Your task to perform on an android device: Open calendar and show me the second week of next month Image 0: 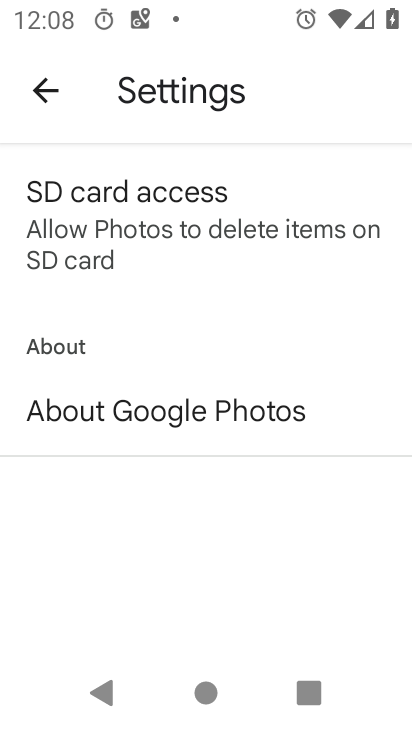
Step 0: press home button
Your task to perform on an android device: Open calendar and show me the second week of next month Image 1: 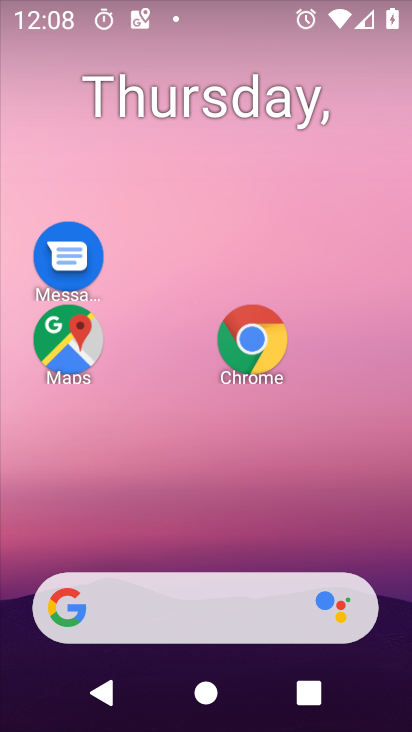
Step 1: drag from (229, 533) to (180, 90)
Your task to perform on an android device: Open calendar and show me the second week of next month Image 2: 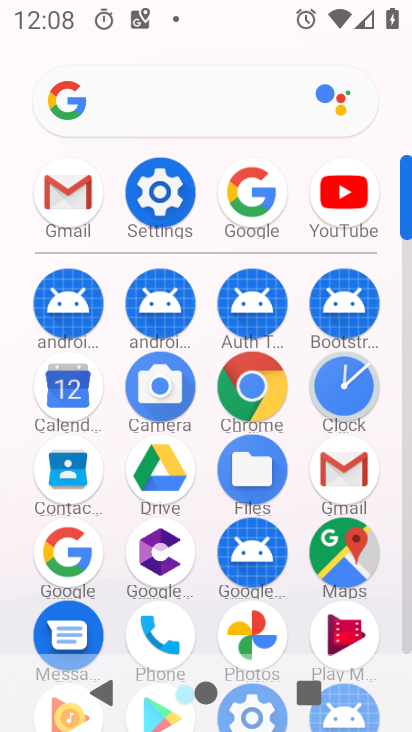
Step 2: click (71, 394)
Your task to perform on an android device: Open calendar and show me the second week of next month Image 3: 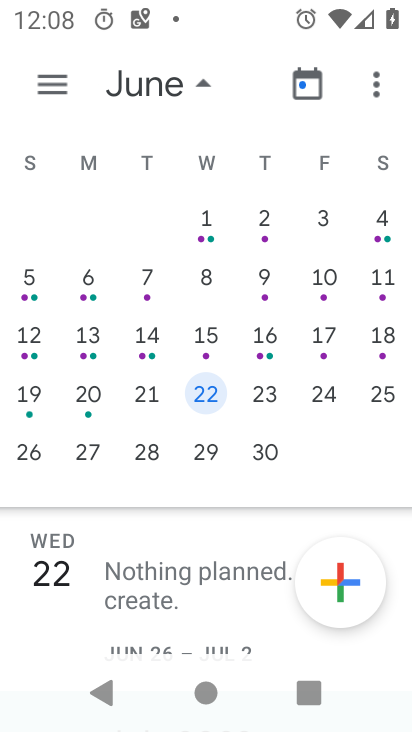
Step 3: click (335, 466)
Your task to perform on an android device: Open calendar and show me the second week of next month Image 4: 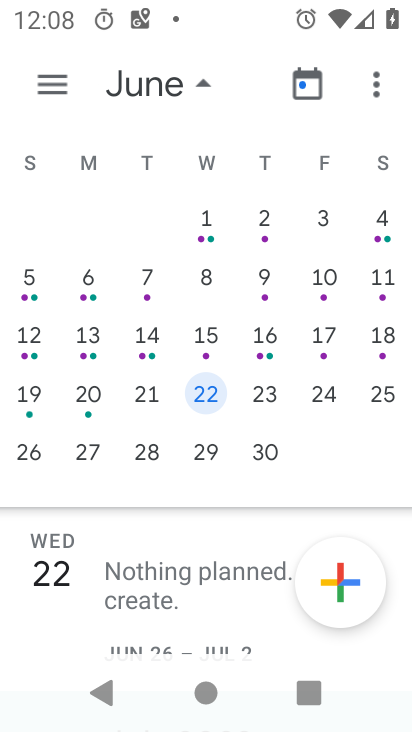
Step 4: click (261, 285)
Your task to perform on an android device: Open calendar and show me the second week of next month Image 5: 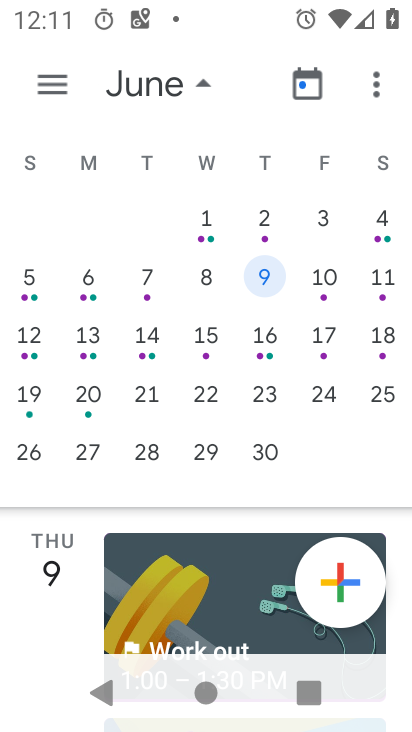
Step 5: task complete